Your task to perform on an android device: Open Google Maps Image 0: 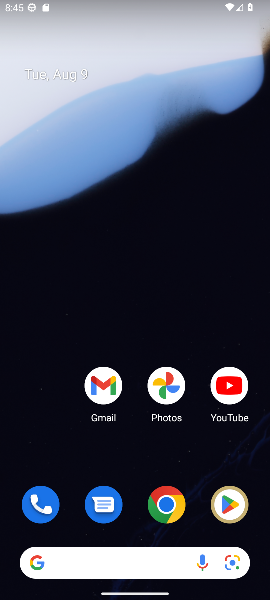
Step 0: drag from (139, 530) to (87, 0)
Your task to perform on an android device: Open Google Maps Image 1: 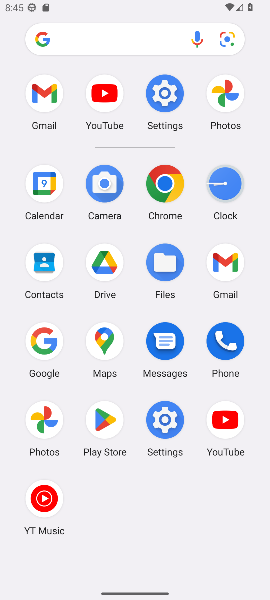
Step 1: click (105, 336)
Your task to perform on an android device: Open Google Maps Image 2: 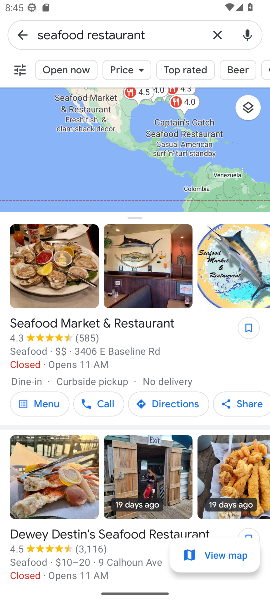
Step 2: click (19, 32)
Your task to perform on an android device: Open Google Maps Image 3: 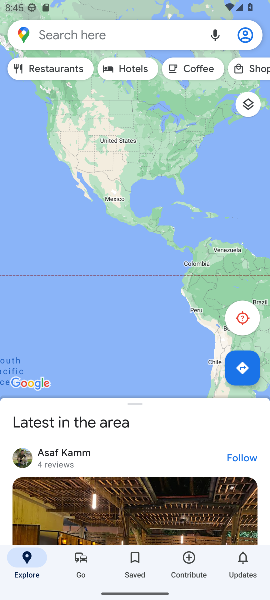
Step 3: task complete